Your task to perform on an android device: What's the weather going to be this weekend? Image 0: 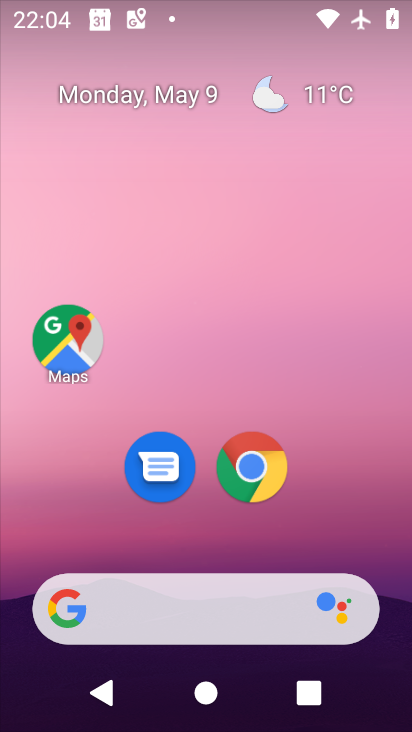
Step 0: drag from (329, 465) to (334, 211)
Your task to perform on an android device: What's the weather going to be this weekend? Image 1: 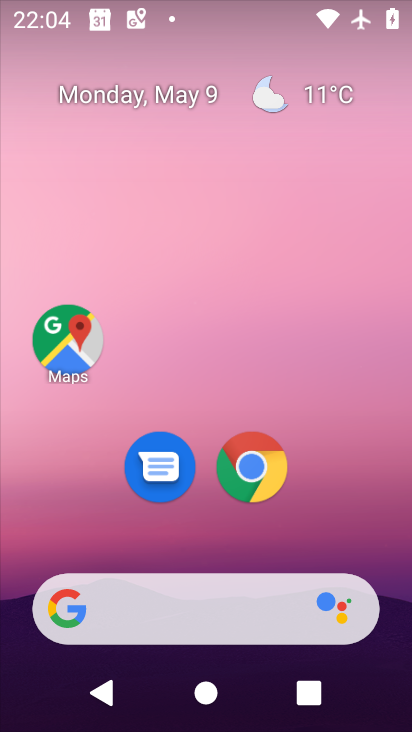
Step 1: drag from (330, 531) to (311, 114)
Your task to perform on an android device: What's the weather going to be this weekend? Image 2: 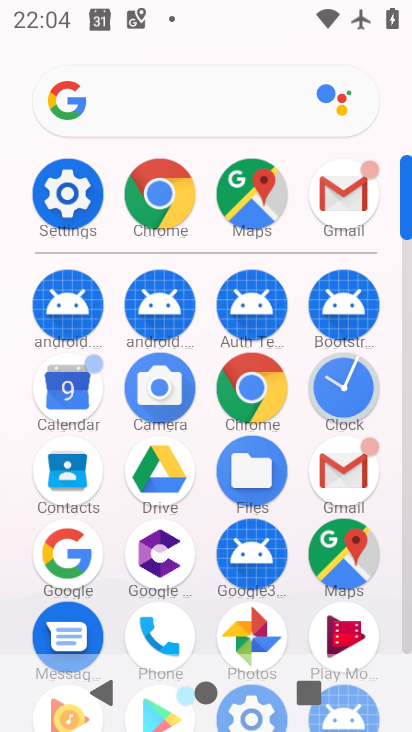
Step 2: click (241, 384)
Your task to perform on an android device: What's the weather going to be this weekend? Image 3: 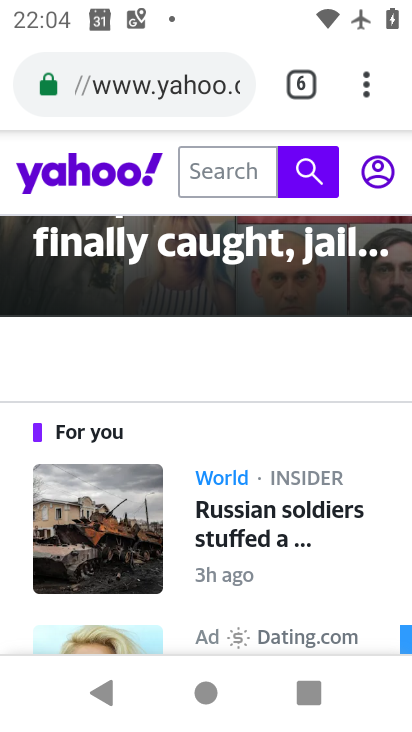
Step 3: click (369, 82)
Your task to perform on an android device: What's the weather going to be this weekend? Image 4: 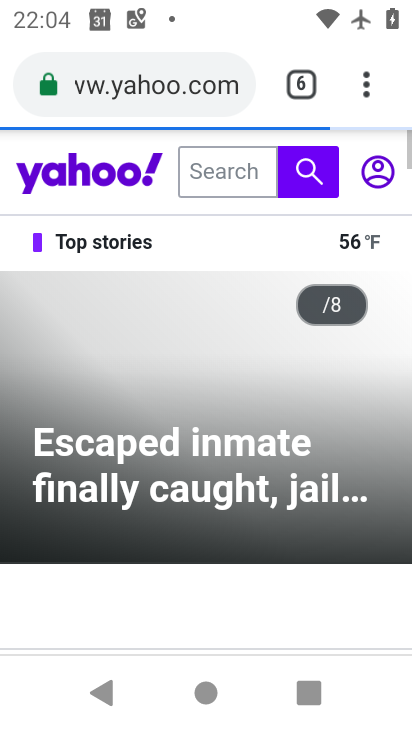
Step 4: click (356, 90)
Your task to perform on an android device: What's the weather going to be this weekend? Image 5: 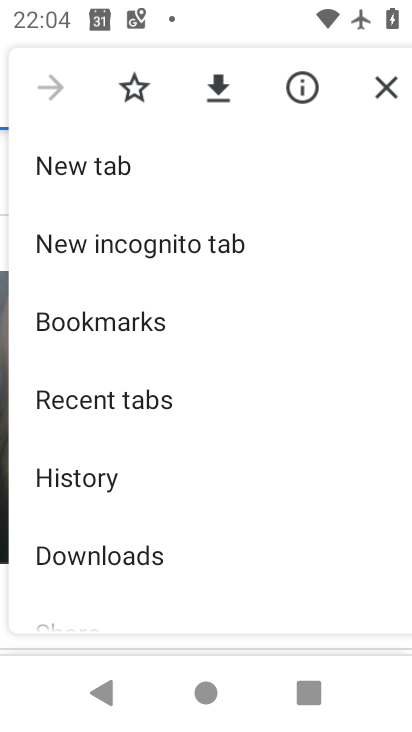
Step 5: click (162, 168)
Your task to perform on an android device: What's the weather going to be this weekend? Image 6: 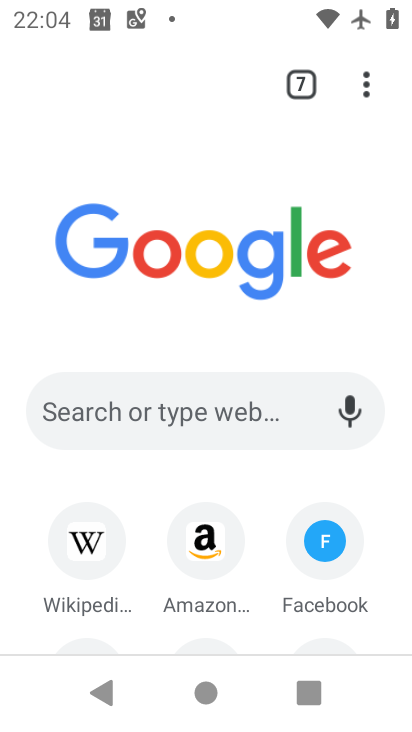
Step 6: click (295, 409)
Your task to perform on an android device: What's the weather going to be this weekend? Image 7: 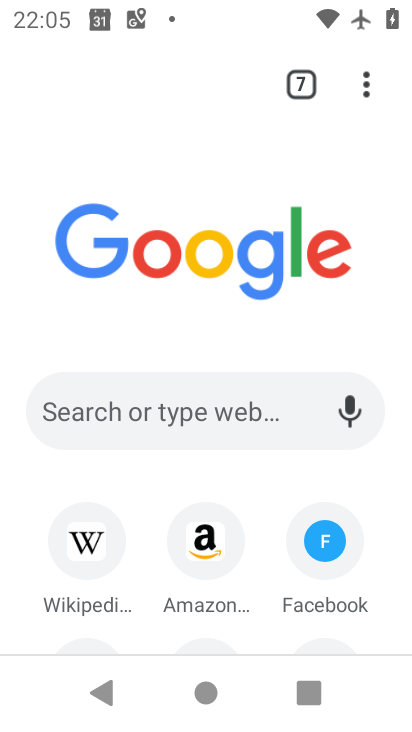
Step 7: click (146, 403)
Your task to perform on an android device: What's the weather going to be this weekend? Image 8: 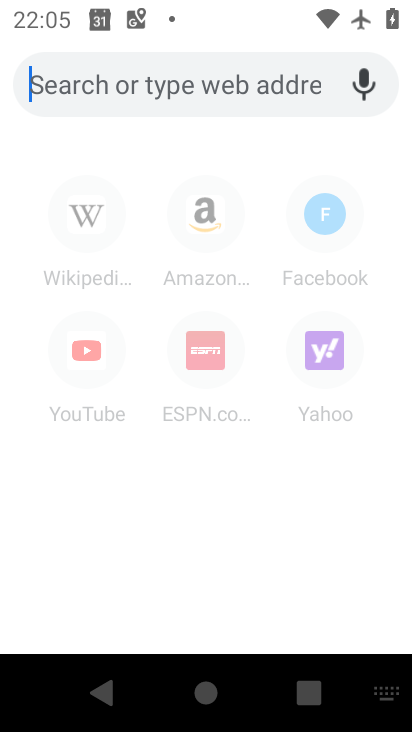
Step 8: type "What's the weather going to be this weekend?"
Your task to perform on an android device: What's the weather going to be this weekend? Image 9: 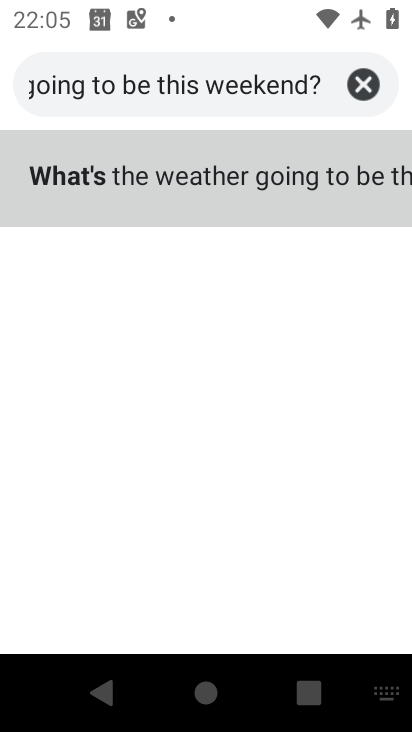
Step 9: click (224, 180)
Your task to perform on an android device: What's the weather going to be this weekend? Image 10: 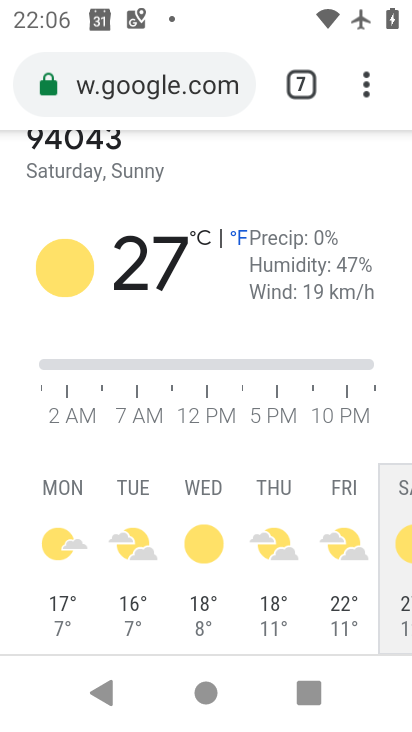
Step 10: task complete